Your task to perform on an android device: check storage Image 0: 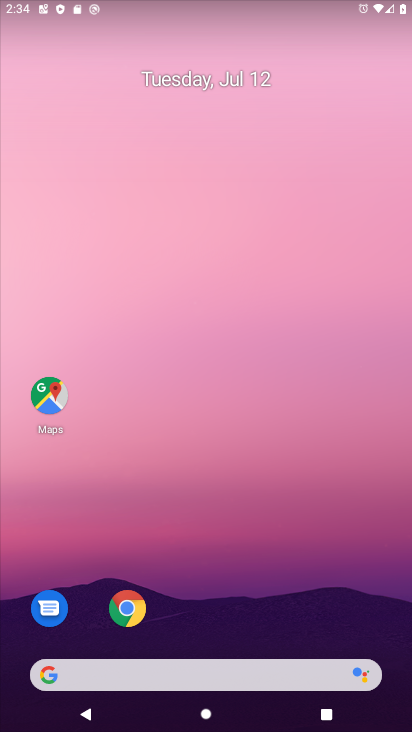
Step 0: drag from (282, 496) to (212, 5)
Your task to perform on an android device: check storage Image 1: 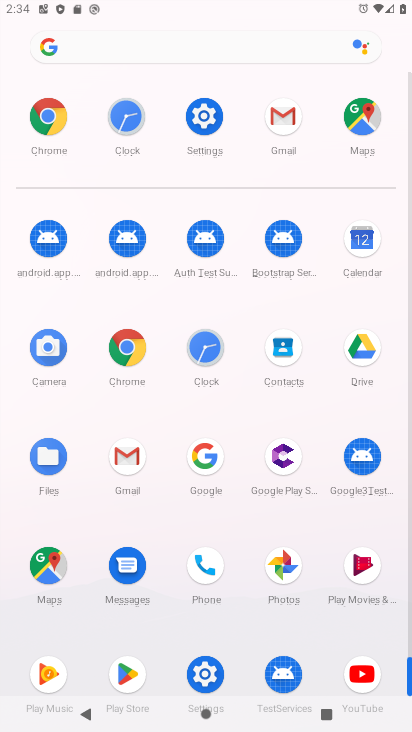
Step 1: click (204, 116)
Your task to perform on an android device: check storage Image 2: 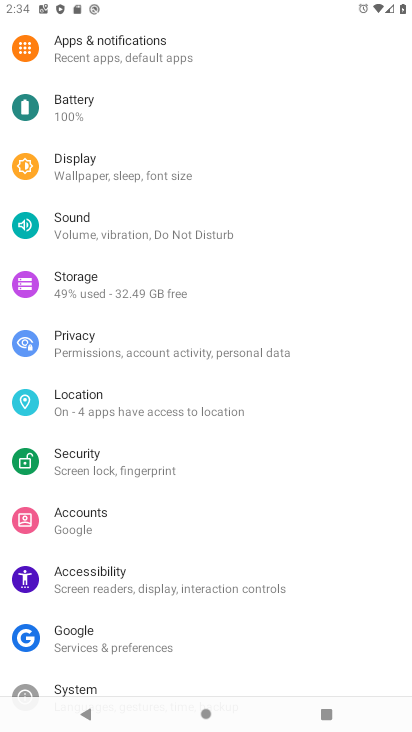
Step 2: click (100, 269)
Your task to perform on an android device: check storage Image 3: 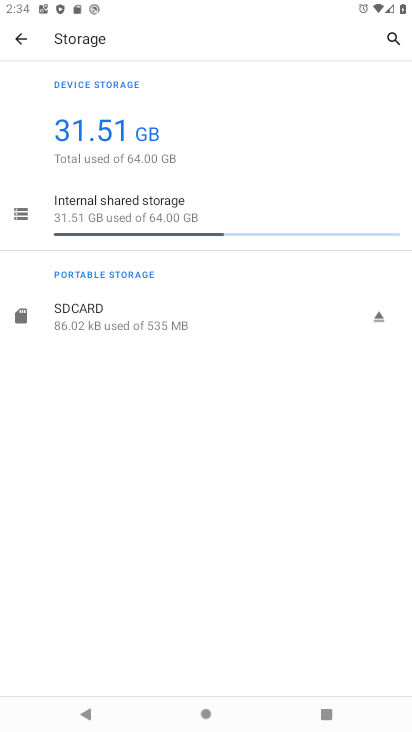
Step 3: task complete